Your task to perform on an android device: Open settings Image 0: 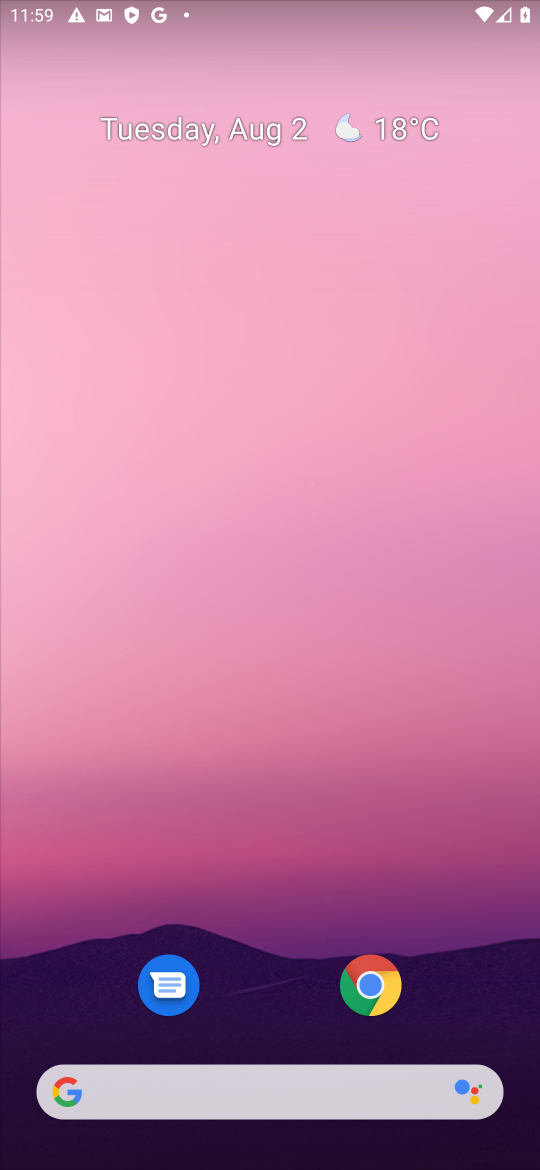
Step 0: drag from (304, 1022) to (284, 29)
Your task to perform on an android device: Open settings Image 1: 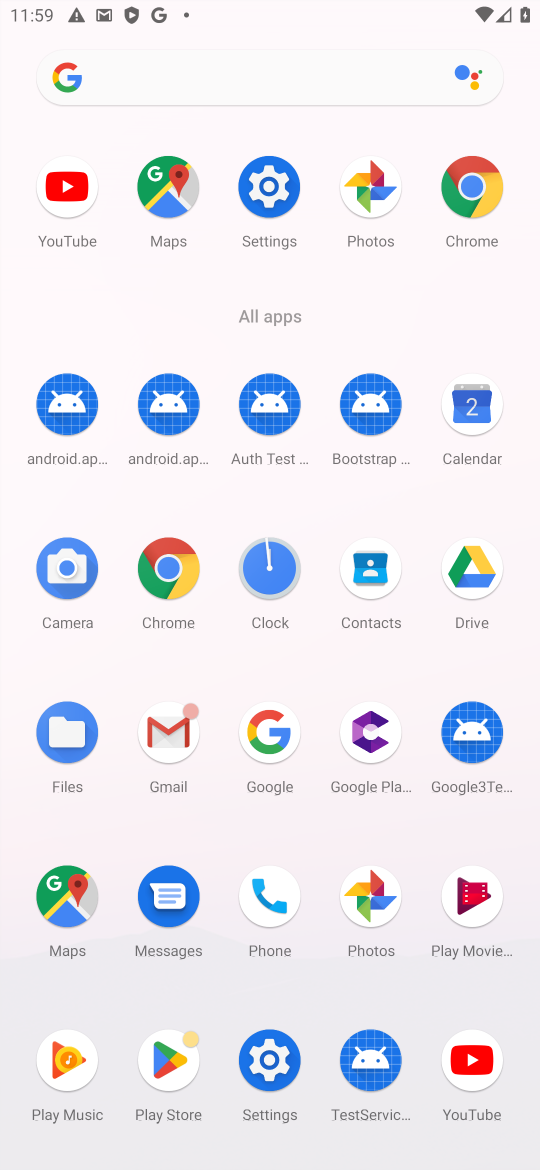
Step 1: click (286, 209)
Your task to perform on an android device: Open settings Image 2: 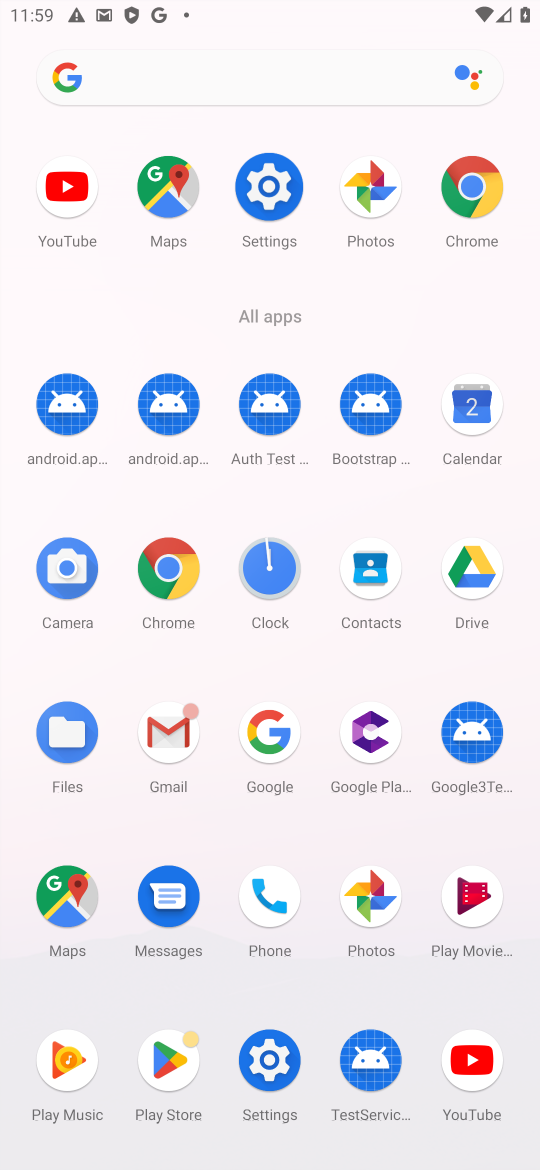
Step 2: task complete